Your task to perform on an android device: When is my next meeting? Image 0: 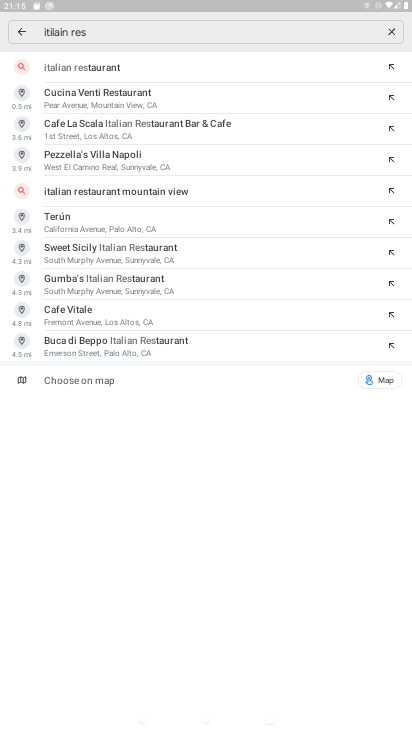
Step 0: press home button
Your task to perform on an android device: When is my next meeting? Image 1: 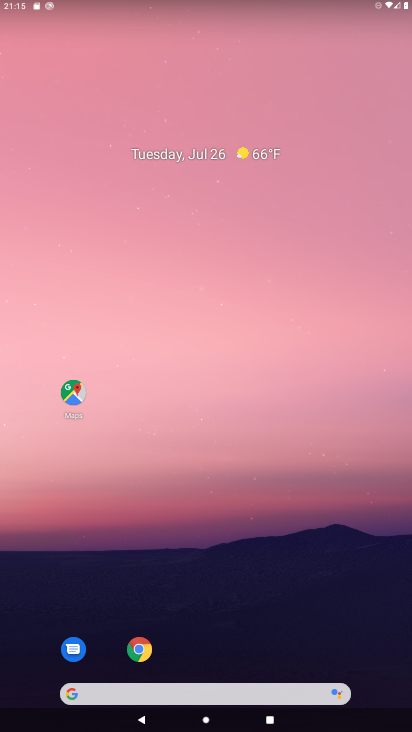
Step 1: drag from (220, 724) to (385, 16)
Your task to perform on an android device: When is my next meeting? Image 2: 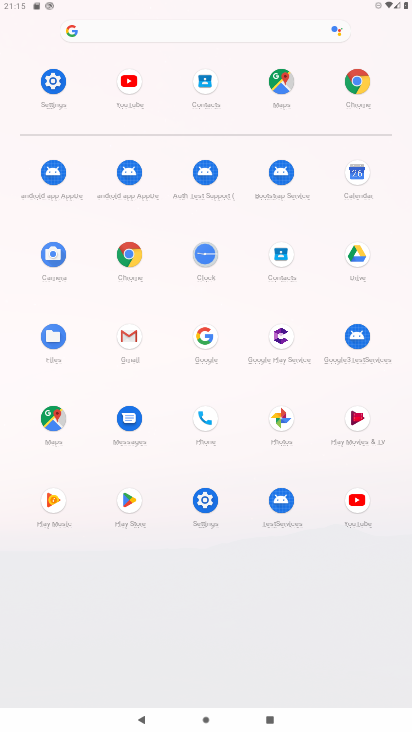
Step 2: click (357, 174)
Your task to perform on an android device: When is my next meeting? Image 3: 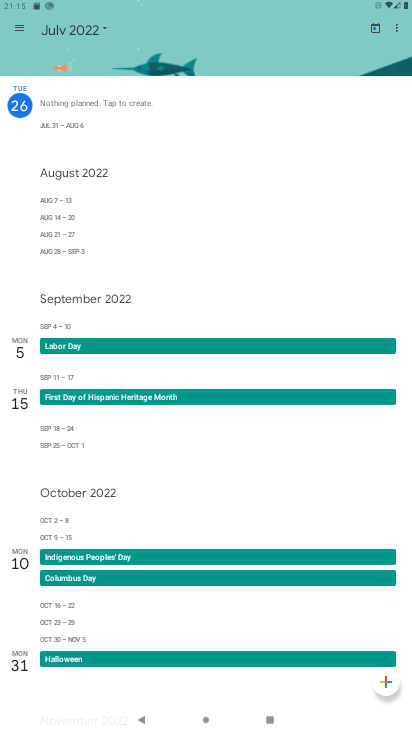
Step 3: task complete